Your task to perform on an android device: Open the stopwatch Image 0: 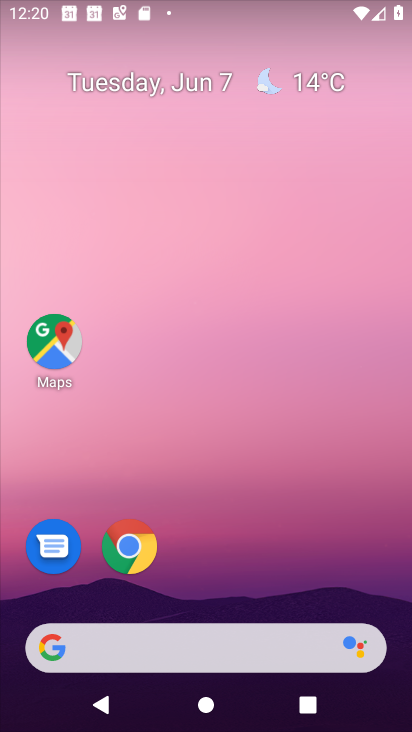
Step 0: drag from (209, 544) to (318, 50)
Your task to perform on an android device: Open the stopwatch Image 1: 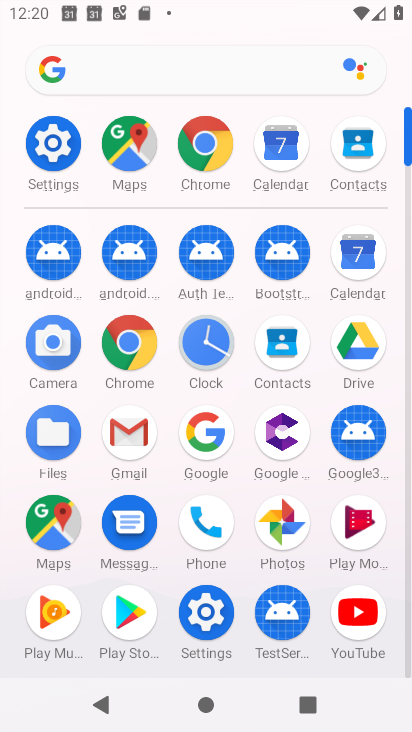
Step 1: click (206, 364)
Your task to perform on an android device: Open the stopwatch Image 2: 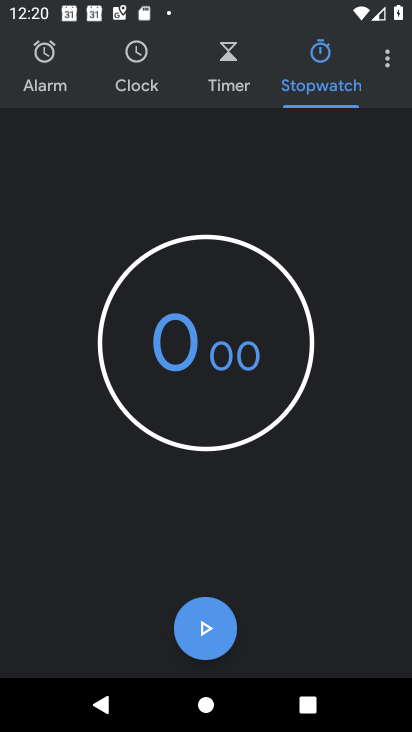
Step 2: click (211, 636)
Your task to perform on an android device: Open the stopwatch Image 3: 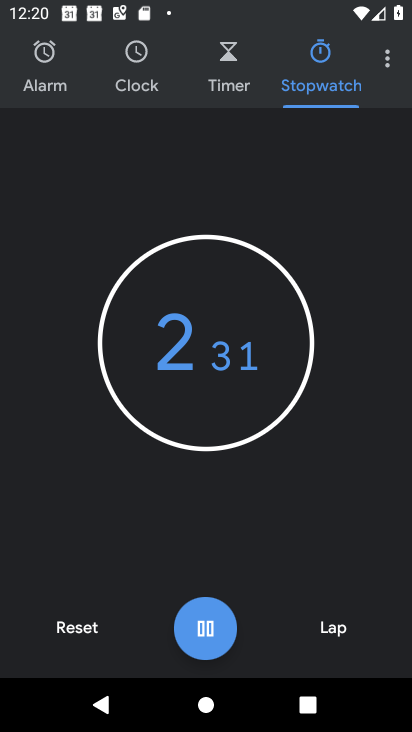
Step 3: task complete